Your task to perform on an android device: open sync settings in chrome Image 0: 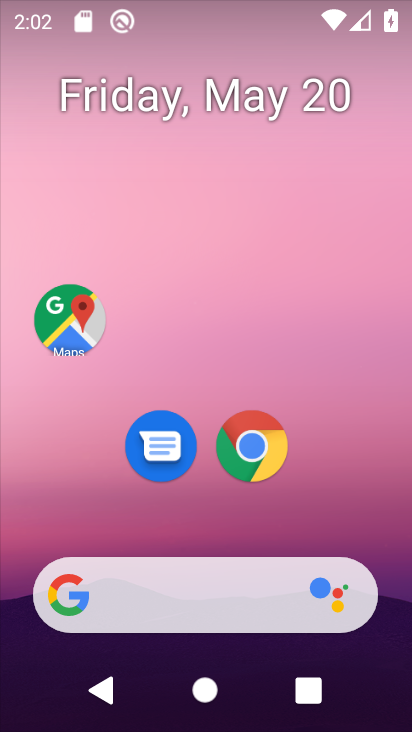
Step 0: click (253, 446)
Your task to perform on an android device: open sync settings in chrome Image 1: 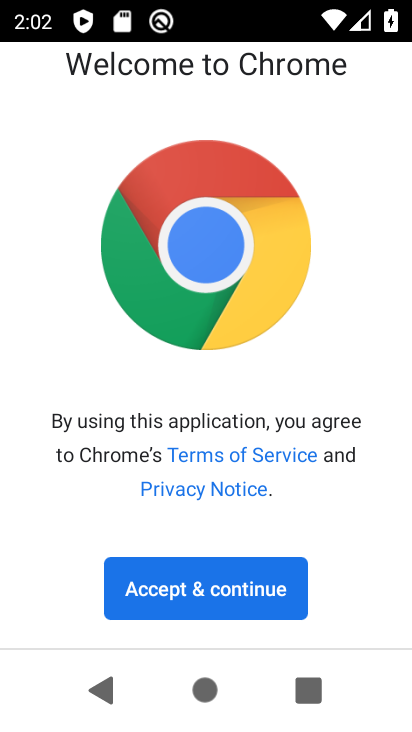
Step 1: click (209, 588)
Your task to perform on an android device: open sync settings in chrome Image 2: 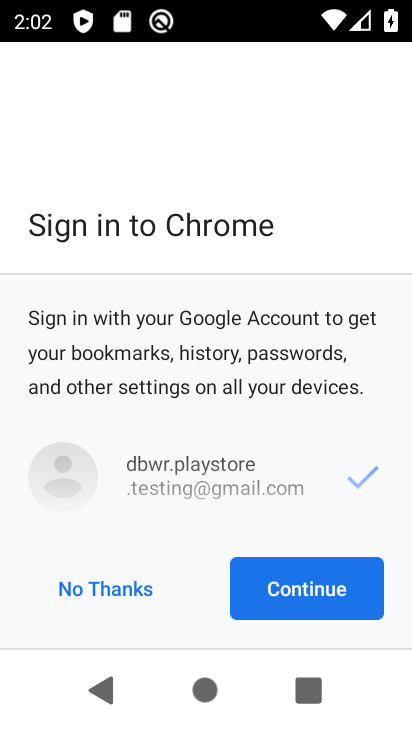
Step 2: click (79, 582)
Your task to perform on an android device: open sync settings in chrome Image 3: 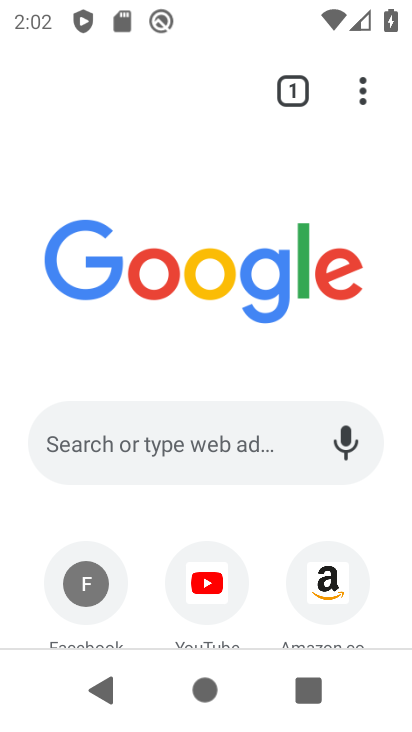
Step 3: click (367, 87)
Your task to perform on an android device: open sync settings in chrome Image 4: 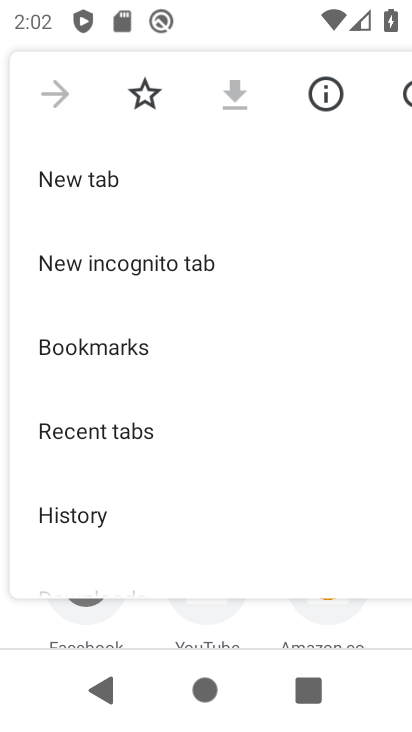
Step 4: drag from (197, 475) to (193, 188)
Your task to perform on an android device: open sync settings in chrome Image 5: 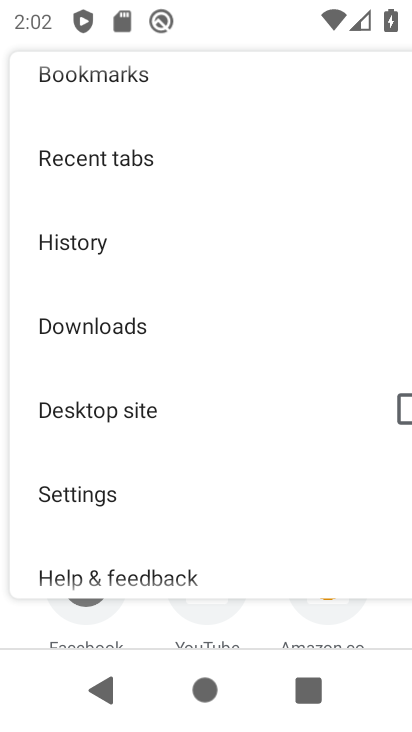
Step 5: click (90, 502)
Your task to perform on an android device: open sync settings in chrome Image 6: 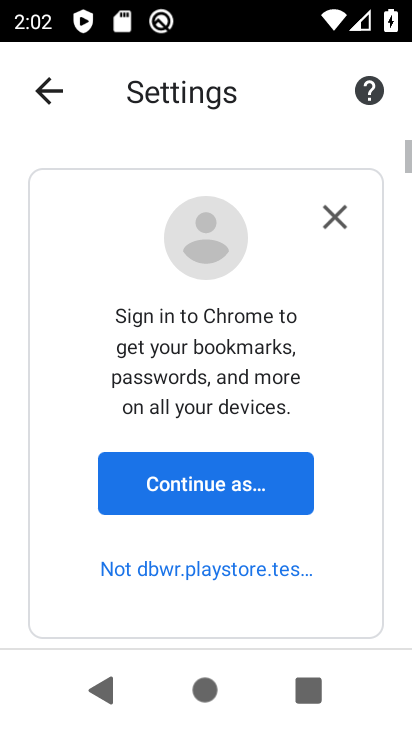
Step 6: click (203, 475)
Your task to perform on an android device: open sync settings in chrome Image 7: 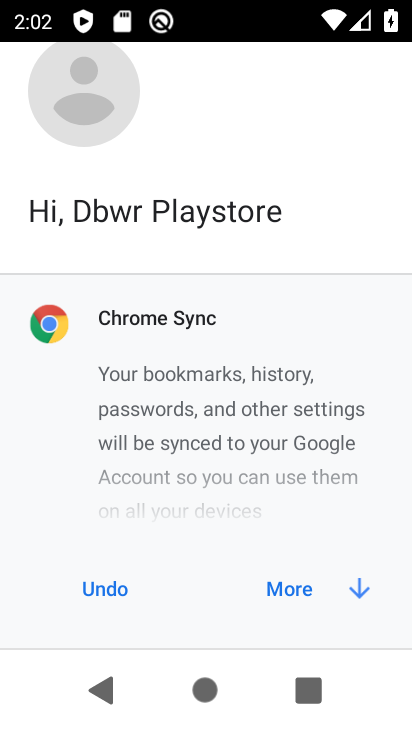
Step 7: click (268, 590)
Your task to perform on an android device: open sync settings in chrome Image 8: 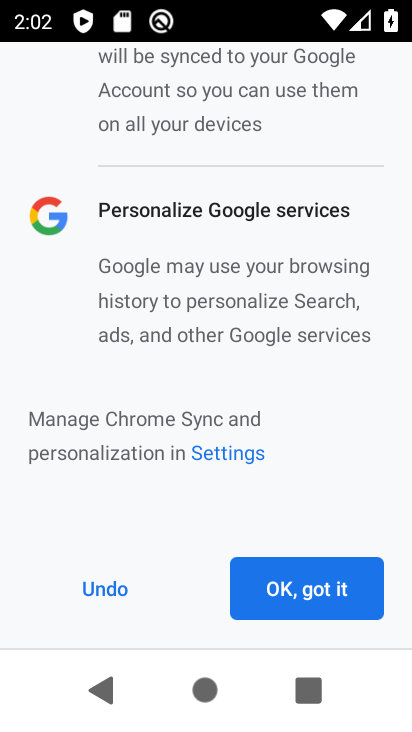
Step 8: click (268, 590)
Your task to perform on an android device: open sync settings in chrome Image 9: 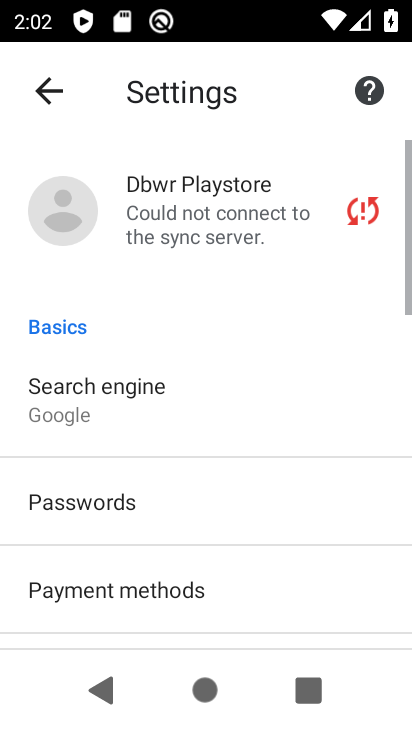
Step 9: click (191, 205)
Your task to perform on an android device: open sync settings in chrome Image 10: 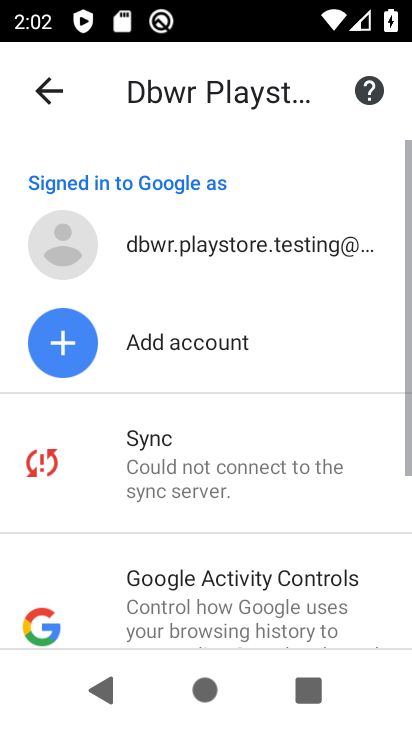
Step 10: click (126, 454)
Your task to perform on an android device: open sync settings in chrome Image 11: 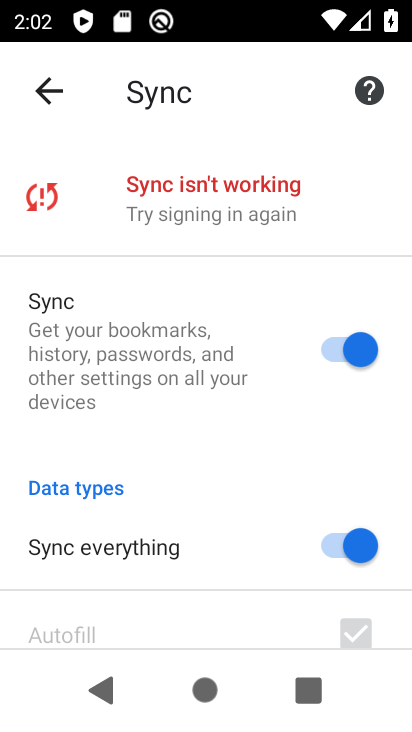
Step 11: task complete